Your task to perform on an android device: toggle sleep mode Image 0: 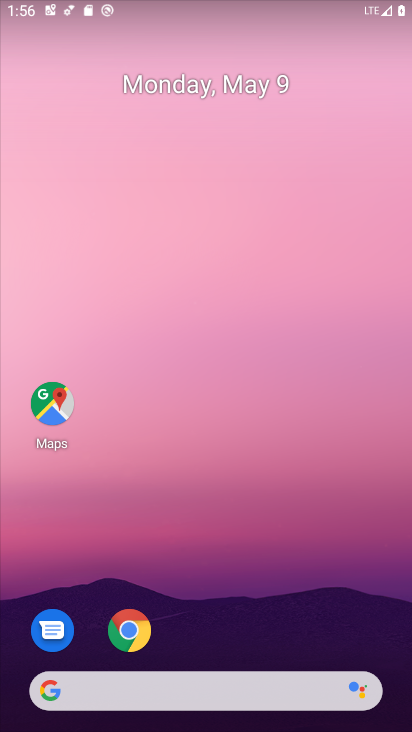
Step 0: drag from (217, 617) to (297, 94)
Your task to perform on an android device: toggle sleep mode Image 1: 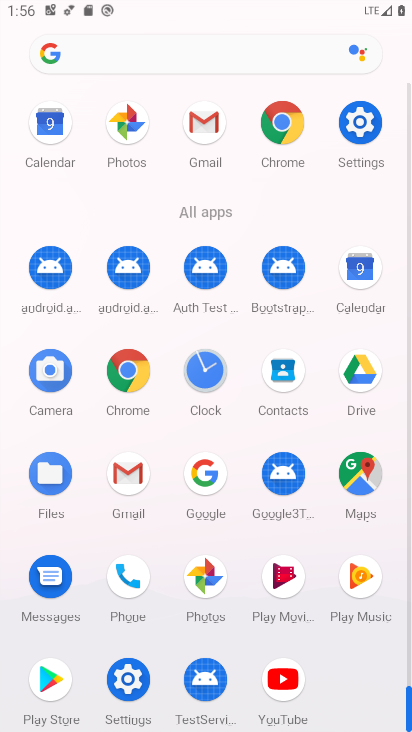
Step 1: click (127, 673)
Your task to perform on an android device: toggle sleep mode Image 2: 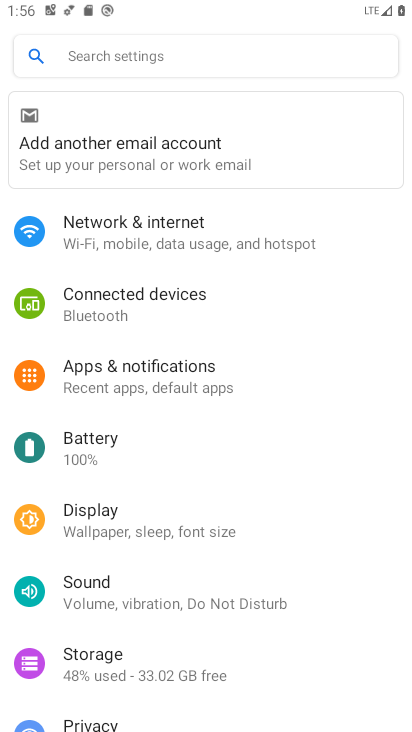
Step 2: click (184, 49)
Your task to perform on an android device: toggle sleep mode Image 3: 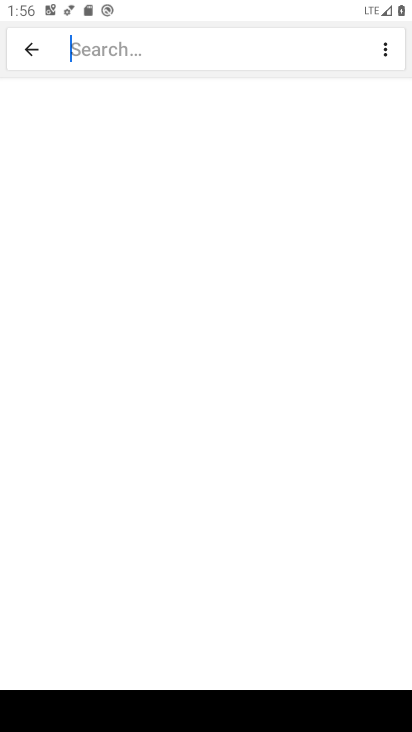
Step 3: type "sleep mode"
Your task to perform on an android device: toggle sleep mode Image 4: 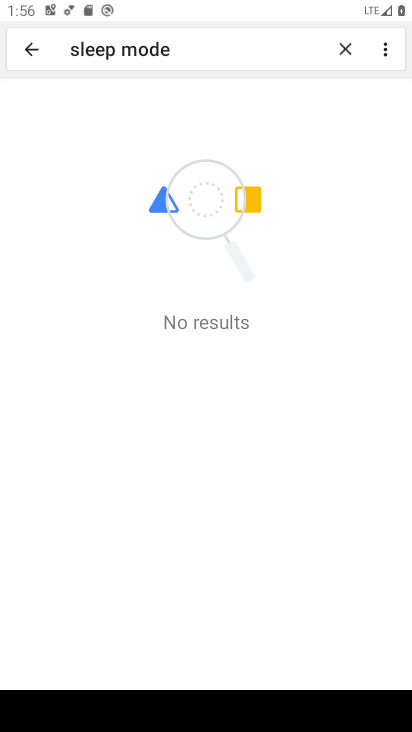
Step 4: task complete